Your task to perform on an android device: When is my next meeting? Image 0: 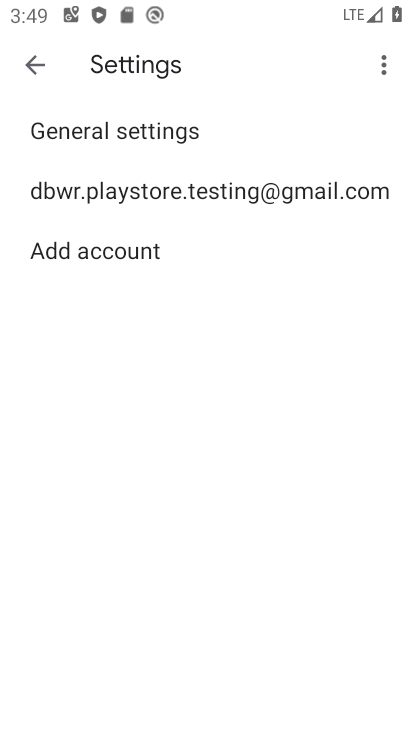
Step 0: press home button
Your task to perform on an android device: When is my next meeting? Image 1: 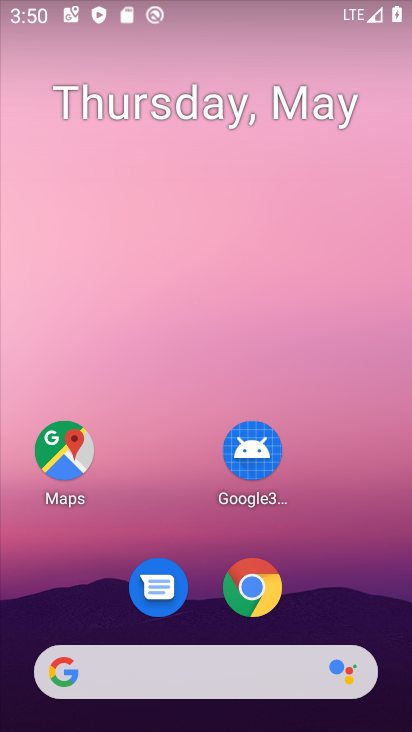
Step 1: drag from (174, 578) to (93, 103)
Your task to perform on an android device: When is my next meeting? Image 2: 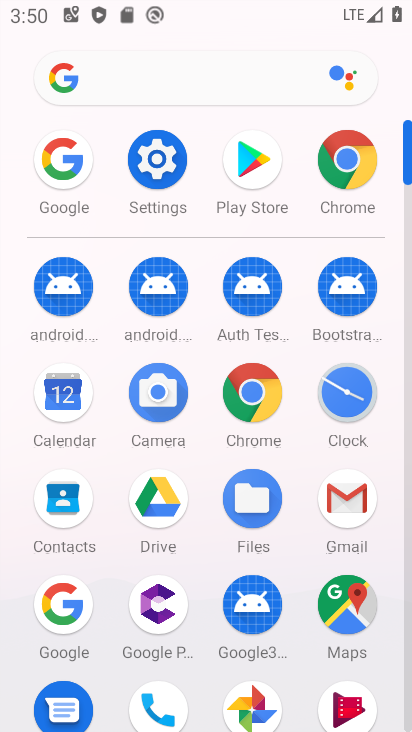
Step 2: click (61, 387)
Your task to perform on an android device: When is my next meeting? Image 3: 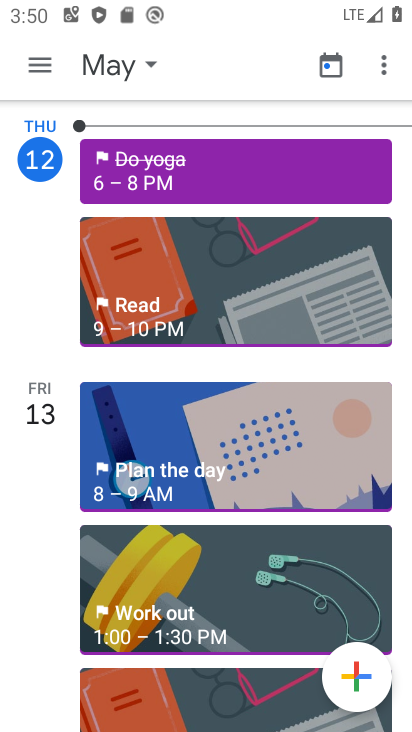
Step 3: task complete